Your task to perform on an android device: When is my next appointment? Image 0: 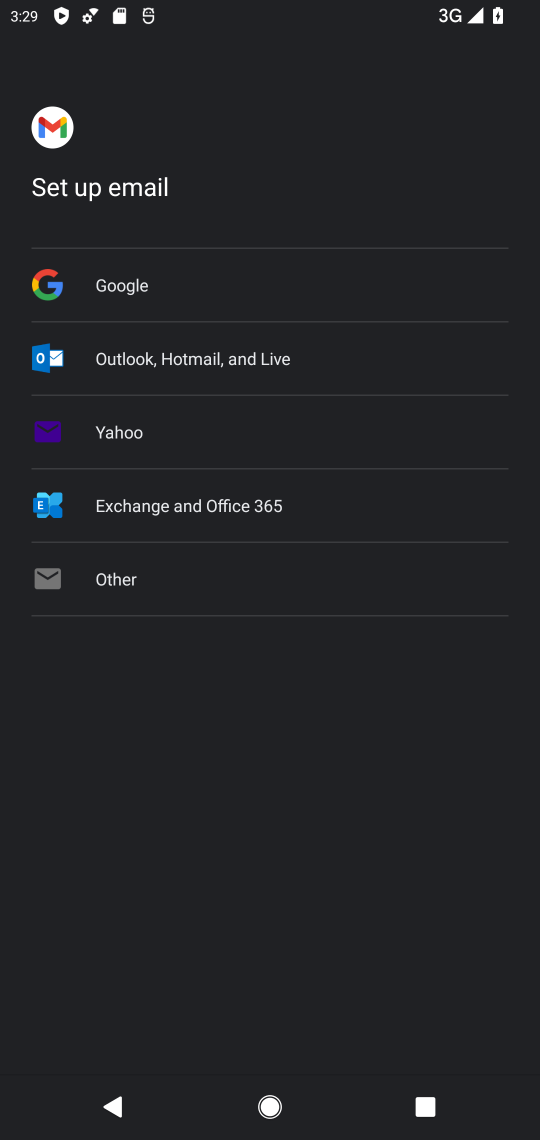
Step 0: task complete